Your task to perform on an android device: see creations saved in the google photos Image 0: 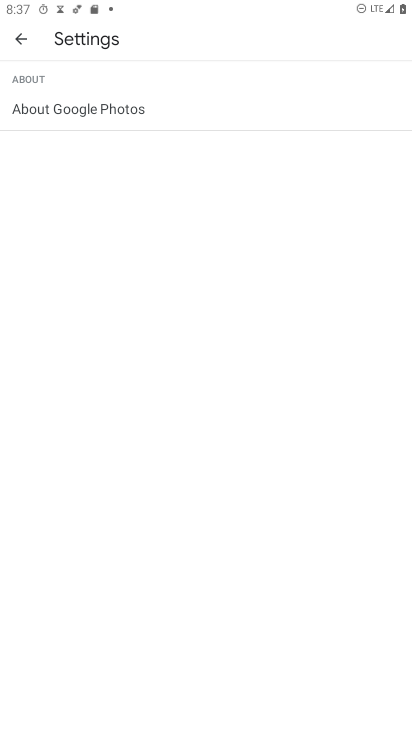
Step 0: press home button
Your task to perform on an android device: see creations saved in the google photos Image 1: 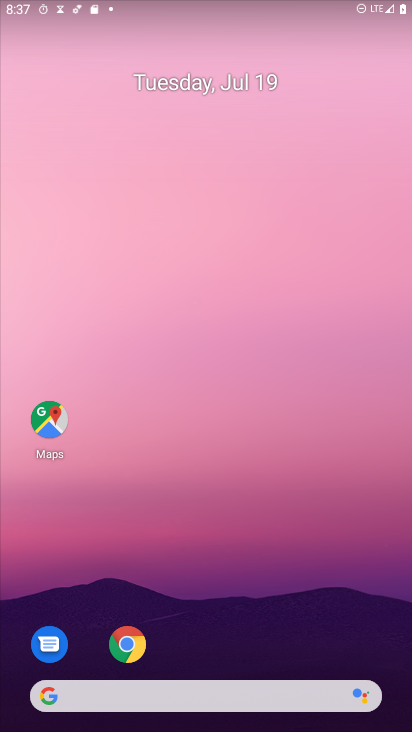
Step 1: drag from (11, 697) to (301, 133)
Your task to perform on an android device: see creations saved in the google photos Image 2: 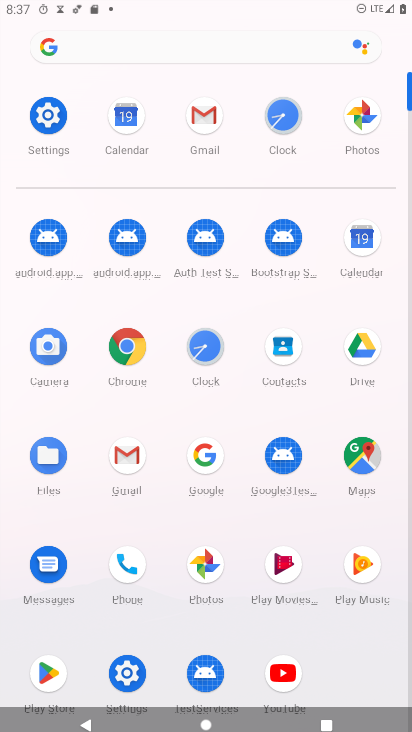
Step 2: click (204, 573)
Your task to perform on an android device: see creations saved in the google photos Image 3: 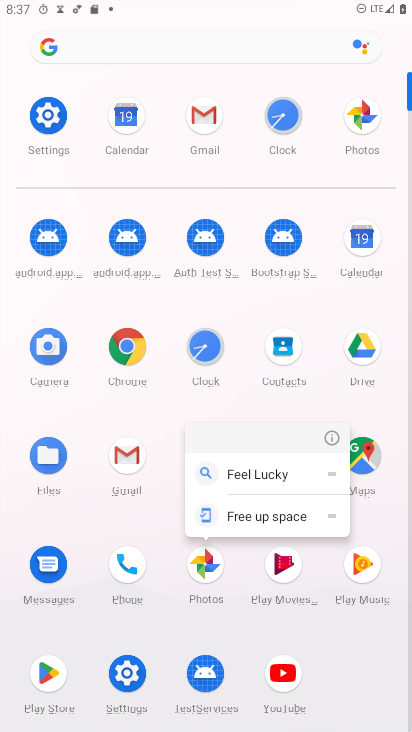
Step 3: click (206, 568)
Your task to perform on an android device: see creations saved in the google photos Image 4: 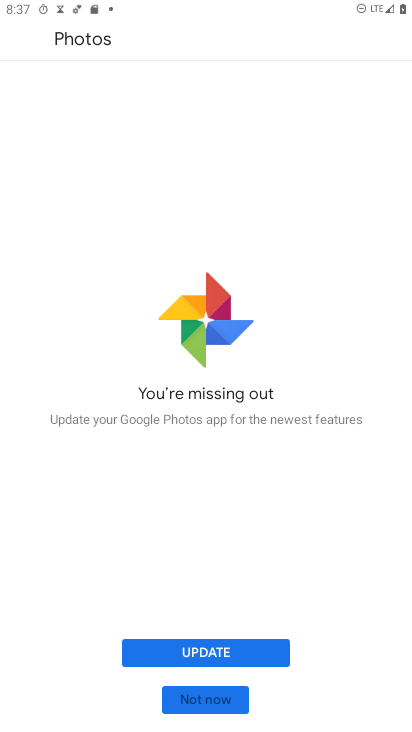
Step 4: click (206, 698)
Your task to perform on an android device: see creations saved in the google photos Image 5: 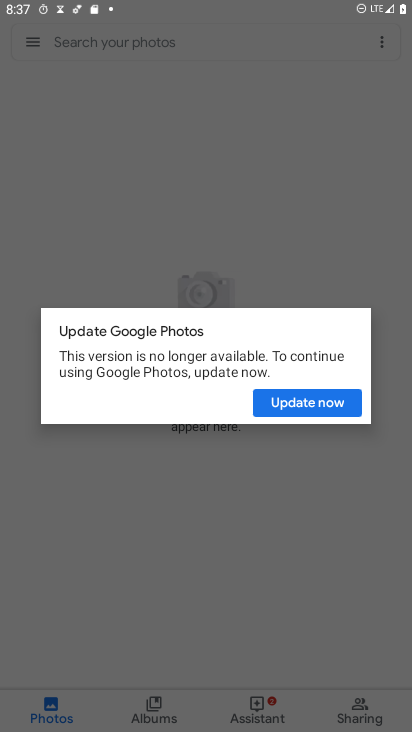
Step 5: click (288, 400)
Your task to perform on an android device: see creations saved in the google photos Image 6: 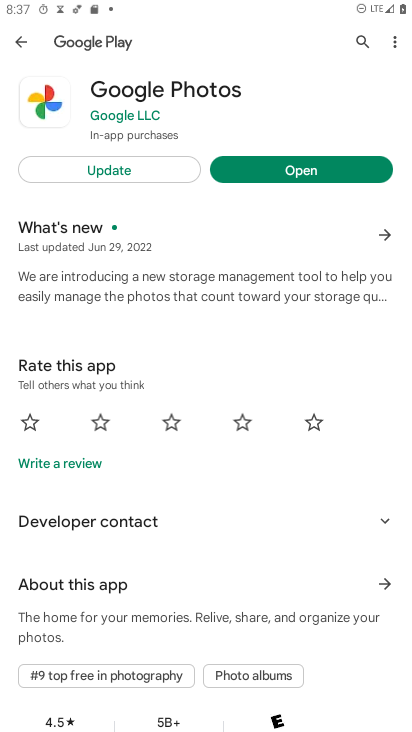
Step 6: click (320, 159)
Your task to perform on an android device: see creations saved in the google photos Image 7: 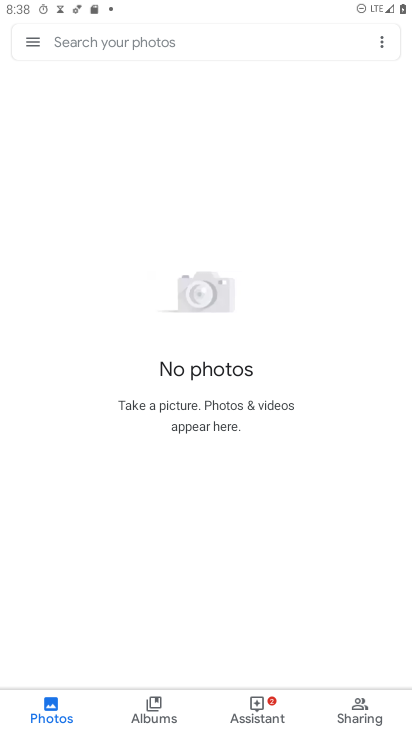
Step 7: task complete